Your task to perform on an android device: change the upload size in google photos Image 0: 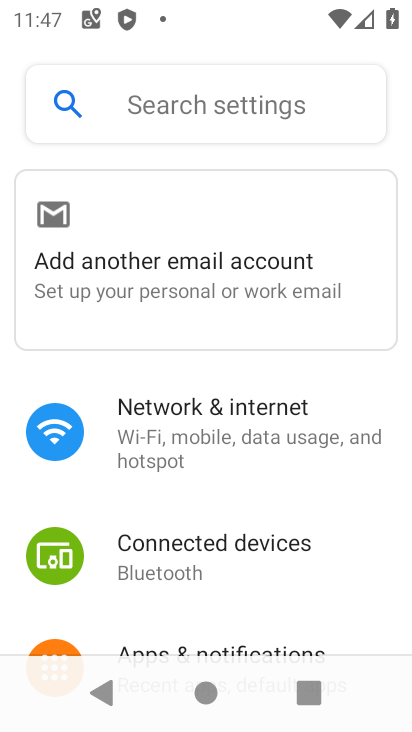
Step 0: press back button
Your task to perform on an android device: change the upload size in google photos Image 1: 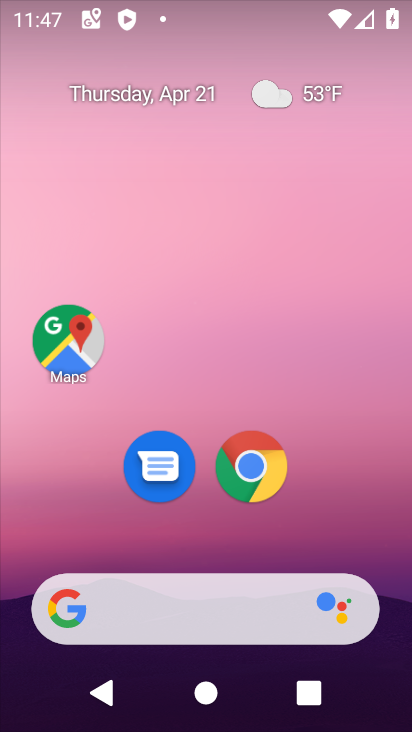
Step 1: drag from (359, 460) to (333, 17)
Your task to perform on an android device: change the upload size in google photos Image 2: 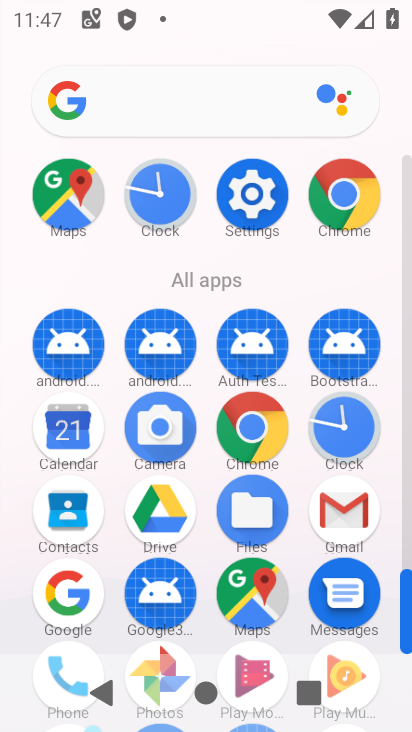
Step 2: drag from (8, 574) to (21, 321)
Your task to perform on an android device: change the upload size in google photos Image 3: 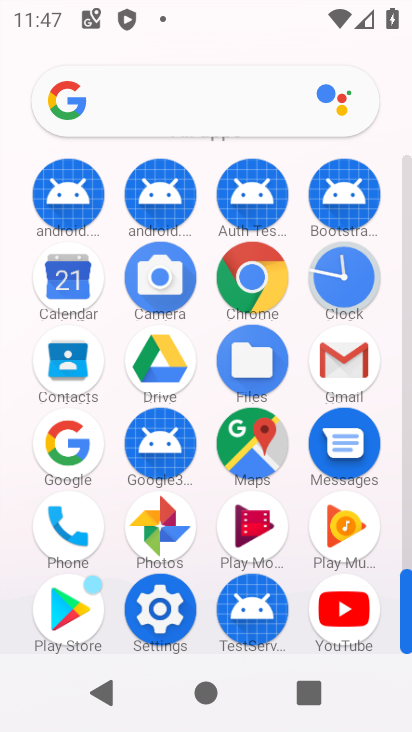
Step 3: click (162, 521)
Your task to perform on an android device: change the upload size in google photos Image 4: 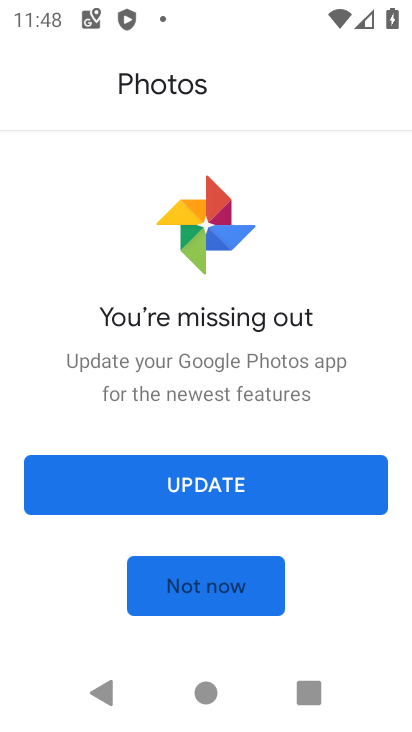
Step 4: click (252, 583)
Your task to perform on an android device: change the upload size in google photos Image 5: 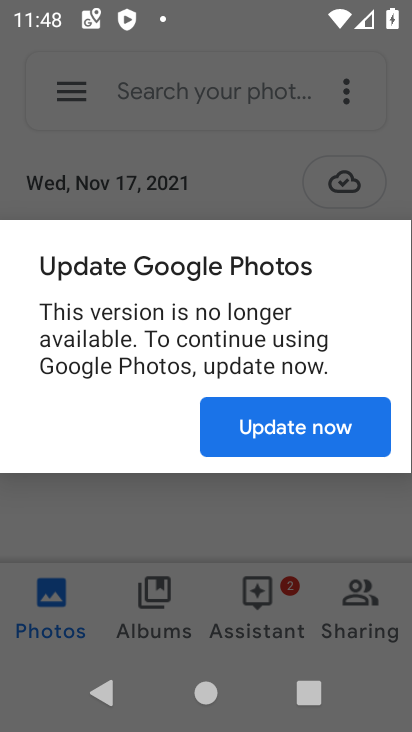
Step 5: click (316, 425)
Your task to perform on an android device: change the upload size in google photos Image 6: 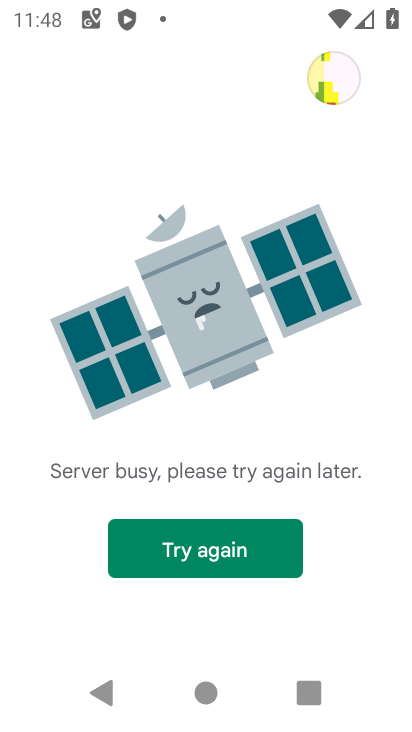
Step 6: click (236, 550)
Your task to perform on an android device: change the upload size in google photos Image 7: 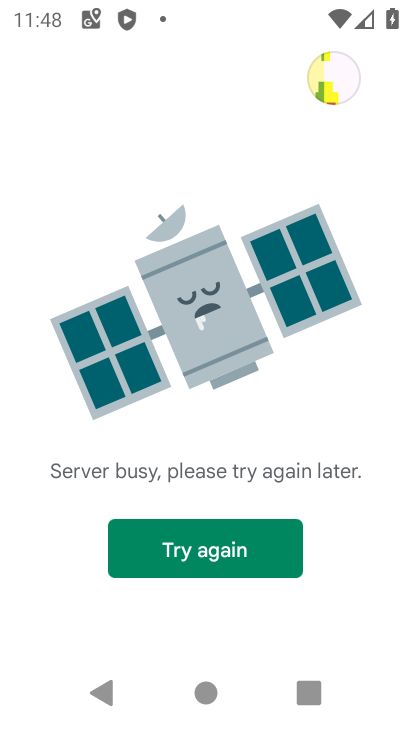
Step 7: task complete